Your task to perform on an android device: Open the Play Movies app and select the watchlist tab. Image 0: 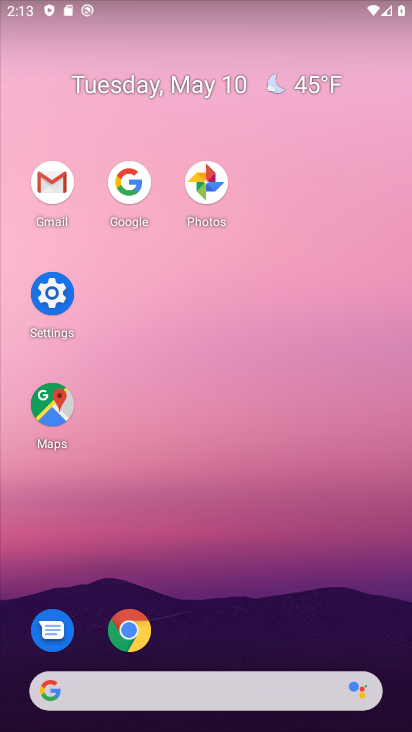
Step 0: drag from (229, 662) to (253, 130)
Your task to perform on an android device: Open the Play Movies app and select the watchlist tab. Image 1: 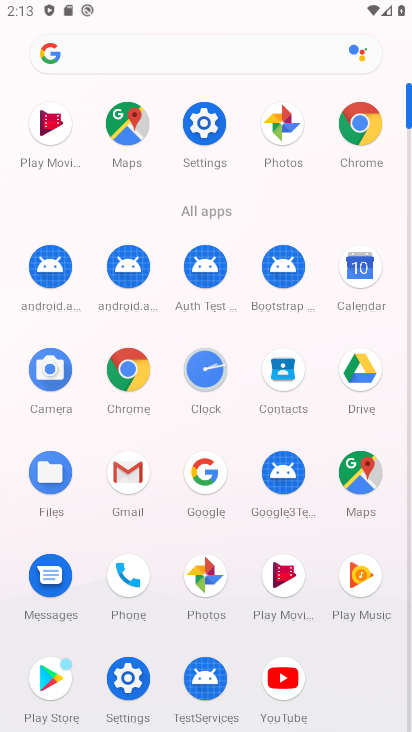
Step 1: click (280, 573)
Your task to perform on an android device: Open the Play Movies app and select the watchlist tab. Image 2: 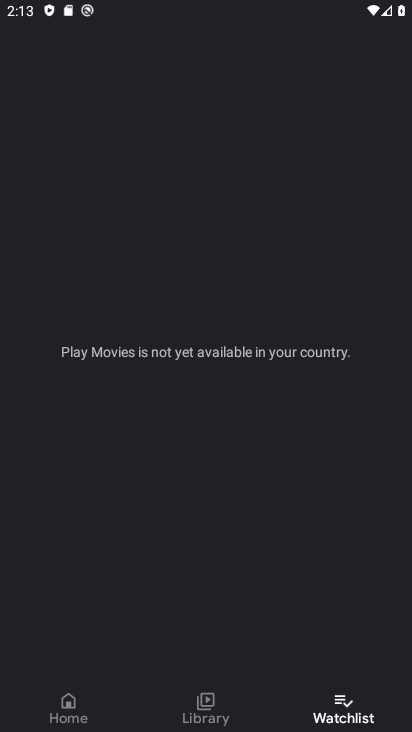
Step 2: task complete